Your task to perform on an android device: Turn on the flashlight Image 0: 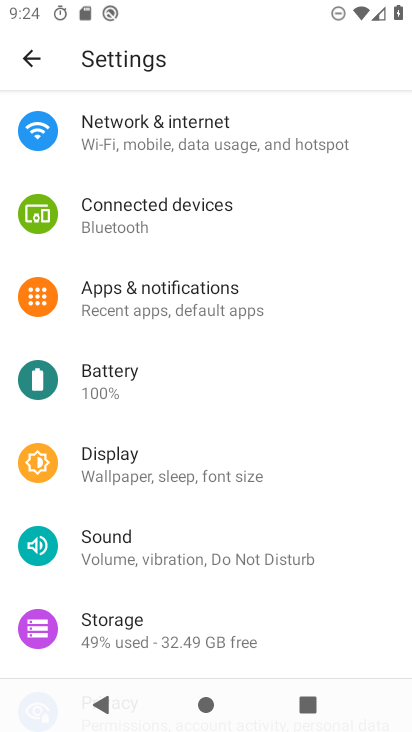
Step 0: click (236, 130)
Your task to perform on an android device: Turn on the flashlight Image 1: 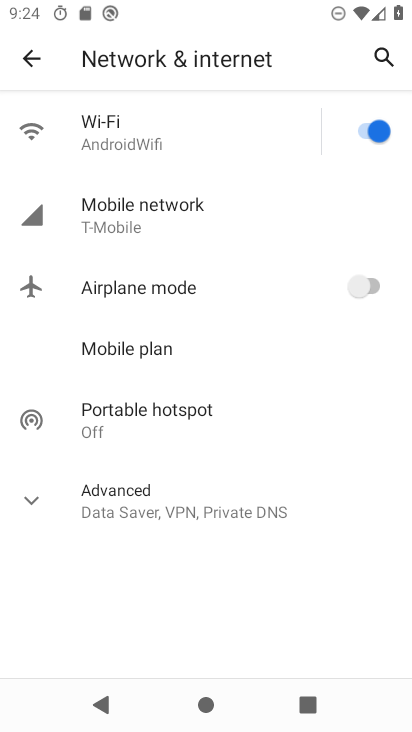
Step 1: click (27, 49)
Your task to perform on an android device: Turn on the flashlight Image 2: 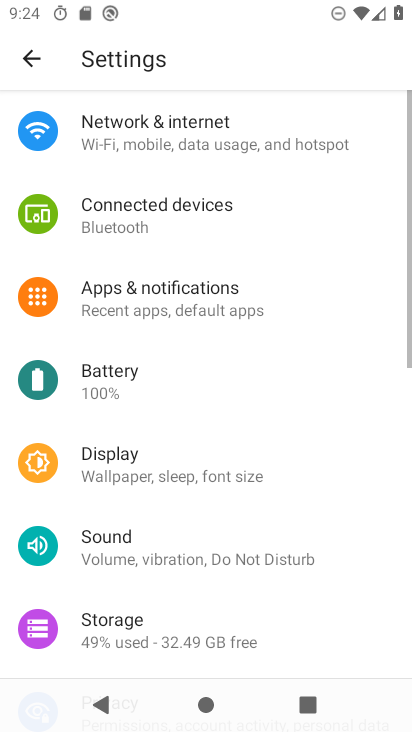
Step 2: drag from (158, 165) to (222, 571)
Your task to perform on an android device: Turn on the flashlight Image 3: 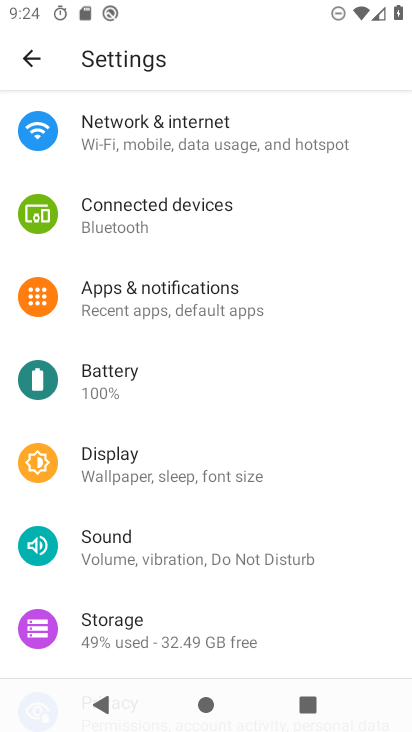
Step 3: click (34, 55)
Your task to perform on an android device: Turn on the flashlight Image 4: 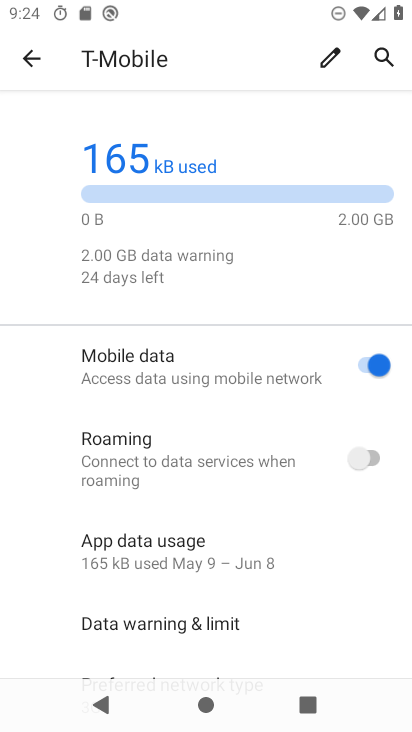
Step 4: click (34, 55)
Your task to perform on an android device: Turn on the flashlight Image 5: 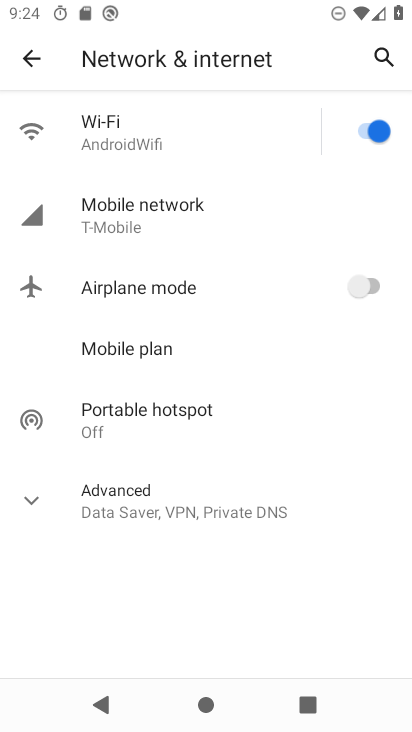
Step 5: click (33, 47)
Your task to perform on an android device: Turn on the flashlight Image 6: 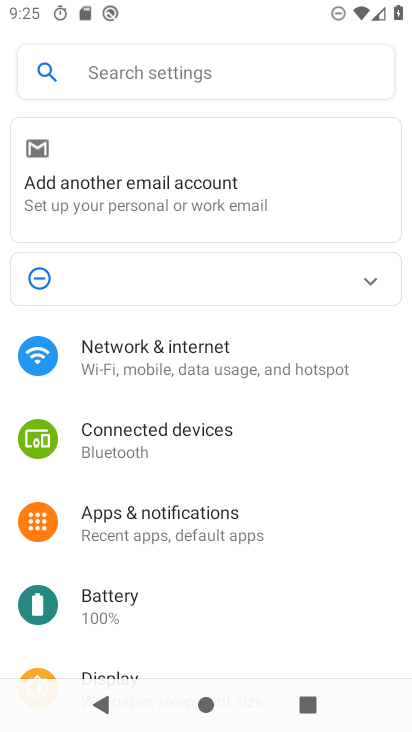
Step 6: click (106, 68)
Your task to perform on an android device: Turn on the flashlight Image 7: 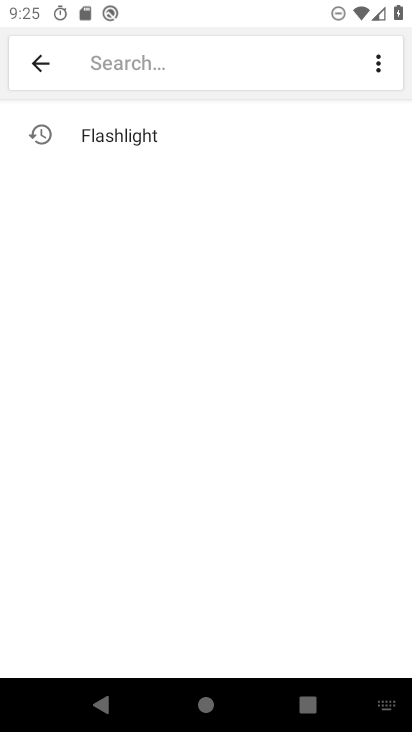
Step 7: click (106, 136)
Your task to perform on an android device: Turn on the flashlight Image 8: 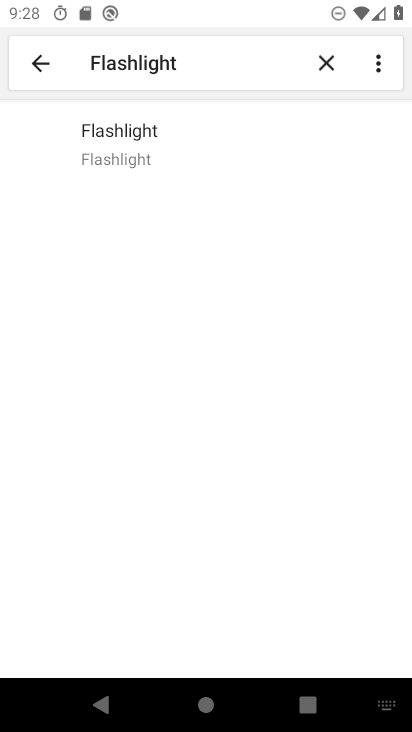
Step 8: task complete